Your task to perform on an android device: open the mobile data screen to see how much data has been used Image 0: 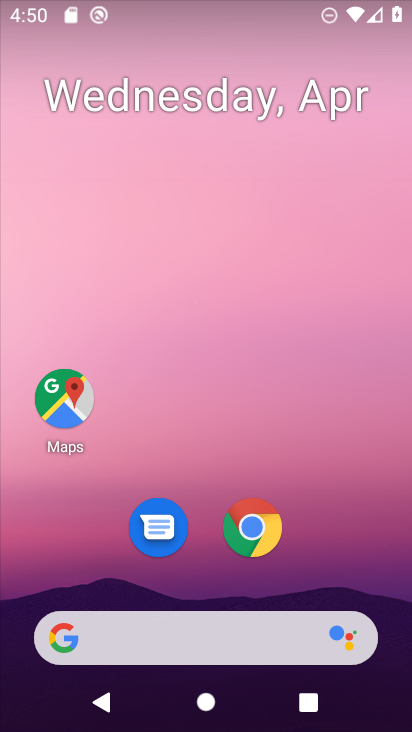
Step 0: drag from (383, 578) to (400, 39)
Your task to perform on an android device: open the mobile data screen to see how much data has been used Image 1: 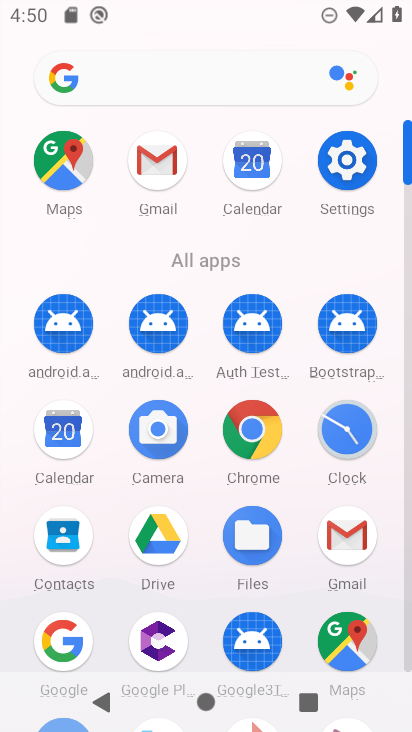
Step 1: click (349, 158)
Your task to perform on an android device: open the mobile data screen to see how much data has been used Image 2: 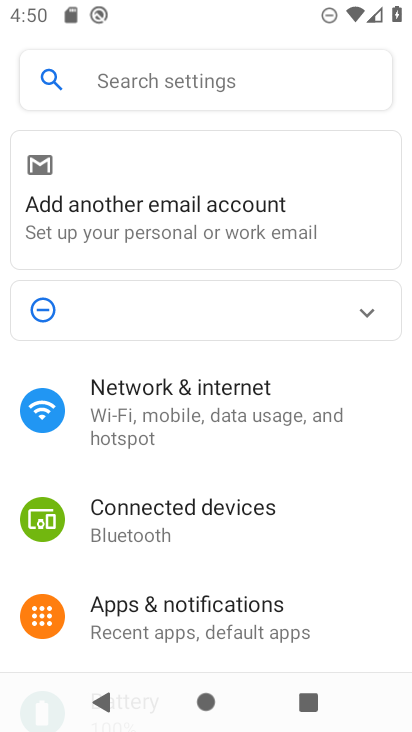
Step 2: click (183, 419)
Your task to perform on an android device: open the mobile data screen to see how much data has been used Image 3: 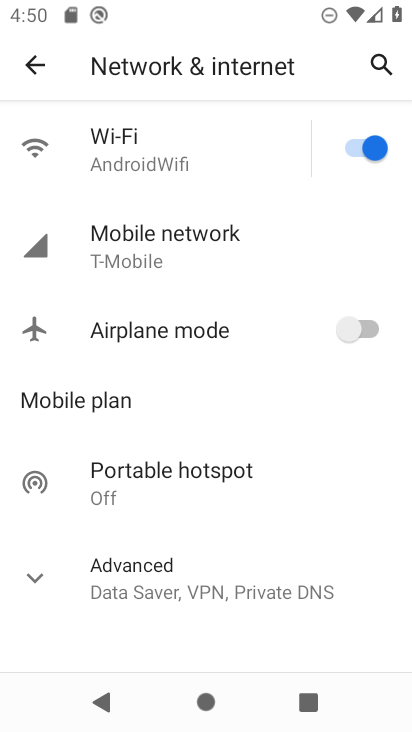
Step 3: click (148, 256)
Your task to perform on an android device: open the mobile data screen to see how much data has been used Image 4: 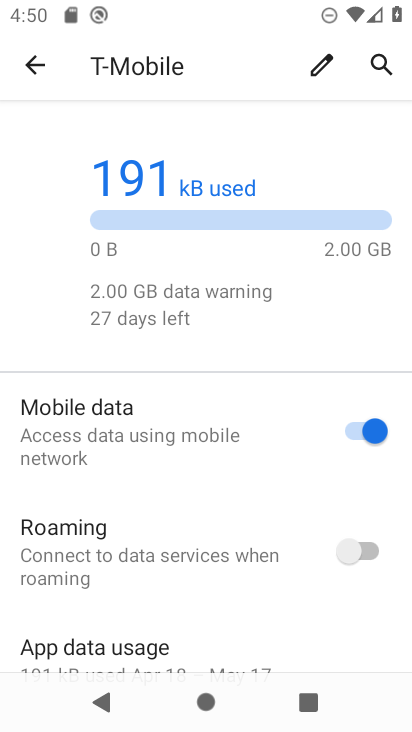
Step 4: drag from (126, 534) to (119, 272)
Your task to perform on an android device: open the mobile data screen to see how much data has been used Image 5: 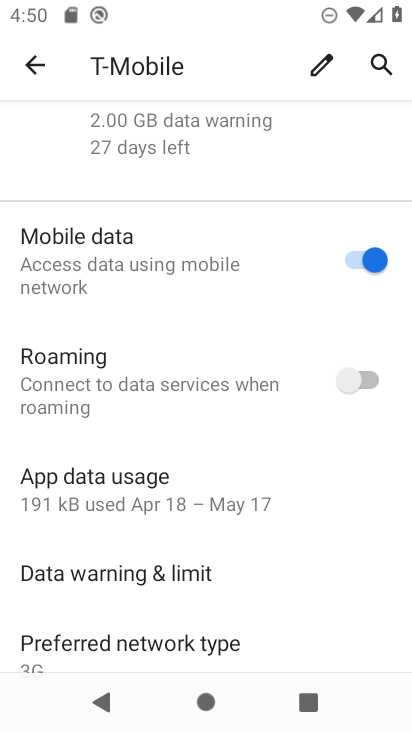
Step 5: click (74, 514)
Your task to perform on an android device: open the mobile data screen to see how much data has been used Image 6: 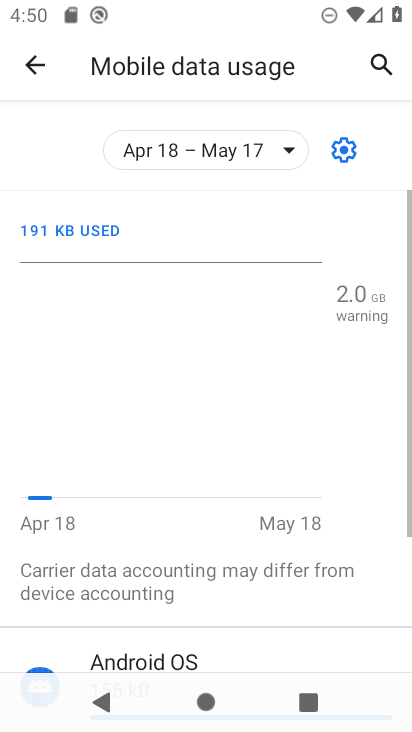
Step 6: task complete